Your task to perform on an android device: Open battery settings Image 0: 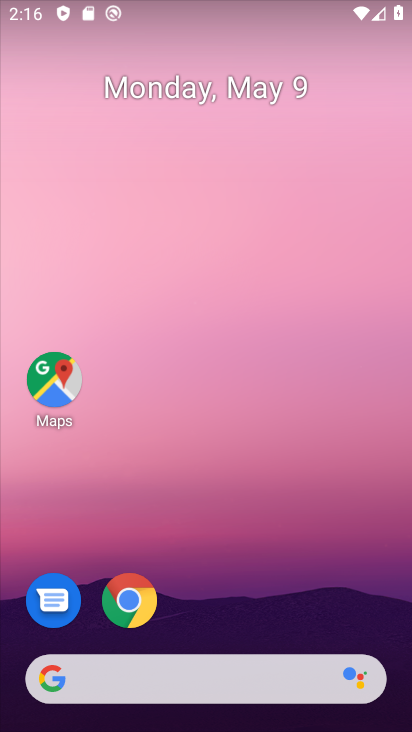
Step 0: drag from (244, 542) to (363, 2)
Your task to perform on an android device: Open battery settings Image 1: 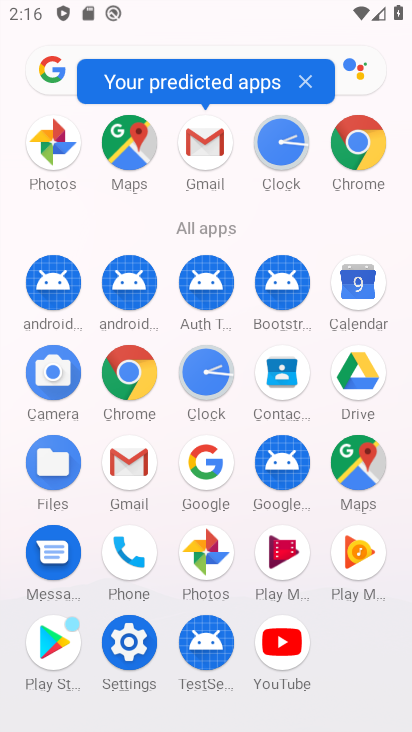
Step 1: click (139, 647)
Your task to perform on an android device: Open battery settings Image 2: 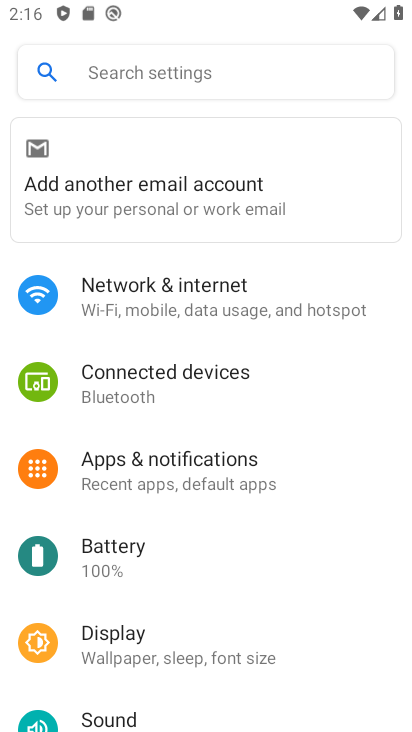
Step 2: click (118, 556)
Your task to perform on an android device: Open battery settings Image 3: 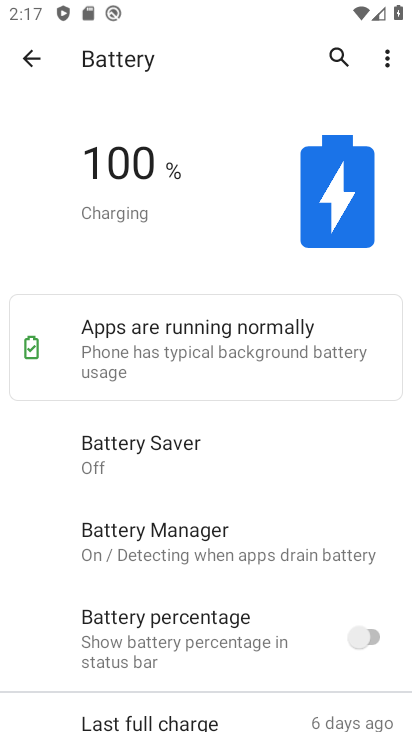
Step 3: task complete